Your task to perform on an android device: toggle javascript in the chrome app Image 0: 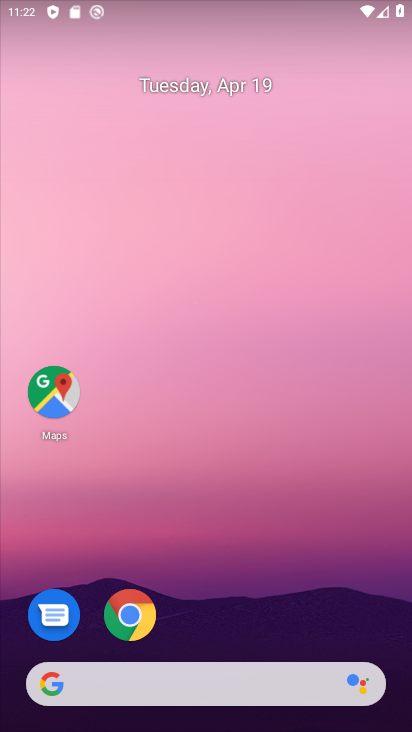
Step 0: drag from (275, 403) to (227, 127)
Your task to perform on an android device: toggle javascript in the chrome app Image 1: 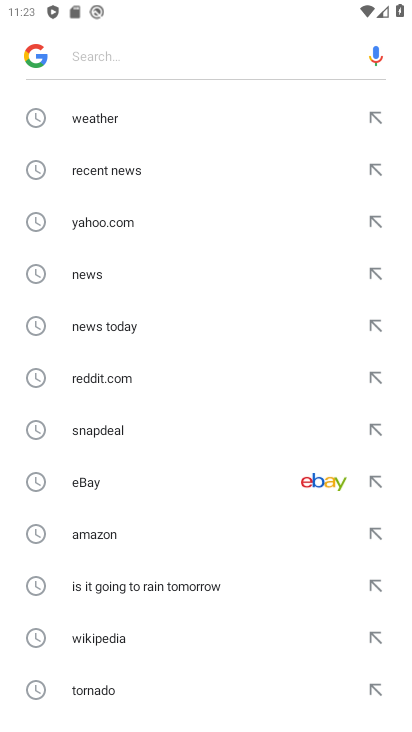
Step 1: press home button
Your task to perform on an android device: toggle javascript in the chrome app Image 2: 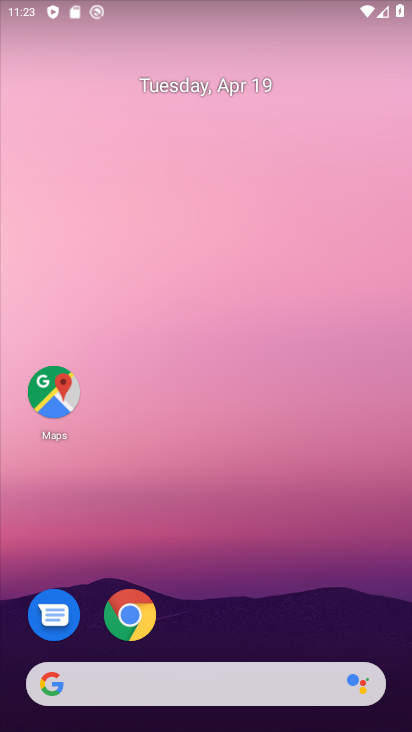
Step 2: click (129, 615)
Your task to perform on an android device: toggle javascript in the chrome app Image 3: 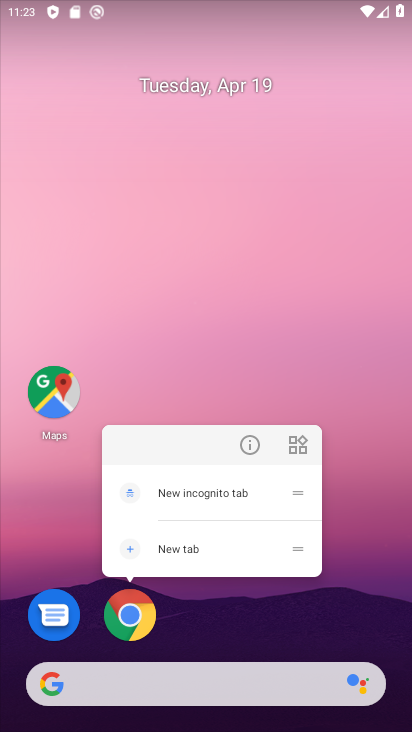
Step 3: click (129, 615)
Your task to perform on an android device: toggle javascript in the chrome app Image 4: 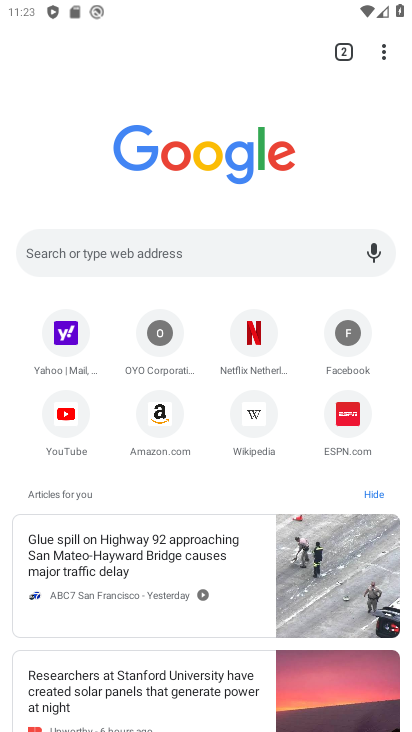
Step 4: click (378, 52)
Your task to perform on an android device: toggle javascript in the chrome app Image 5: 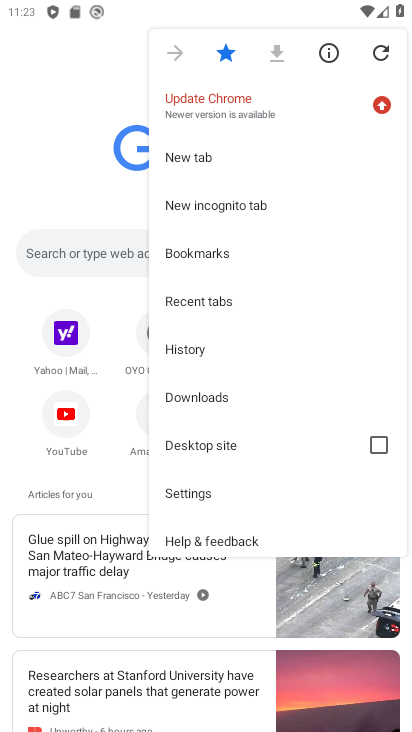
Step 5: click (204, 490)
Your task to perform on an android device: toggle javascript in the chrome app Image 6: 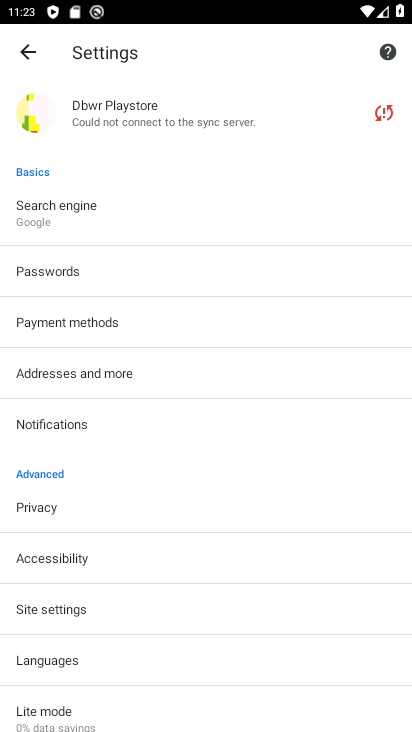
Step 6: drag from (195, 506) to (194, 187)
Your task to perform on an android device: toggle javascript in the chrome app Image 7: 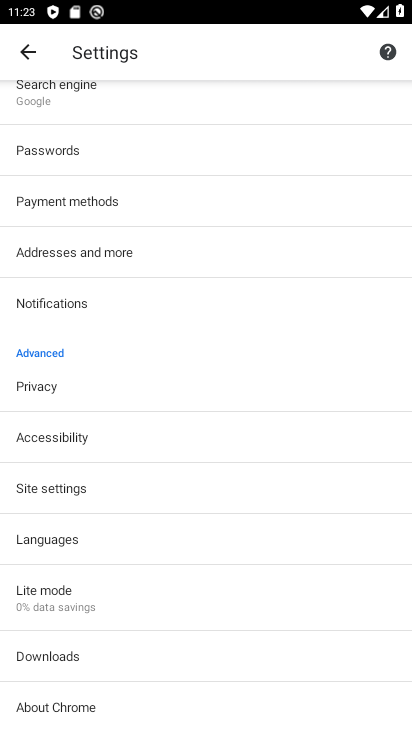
Step 7: drag from (175, 369) to (168, 151)
Your task to perform on an android device: toggle javascript in the chrome app Image 8: 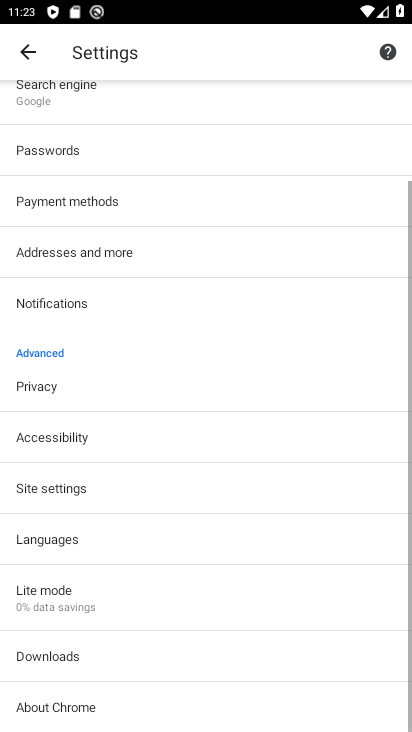
Step 8: drag from (174, 362) to (193, 306)
Your task to perform on an android device: toggle javascript in the chrome app Image 9: 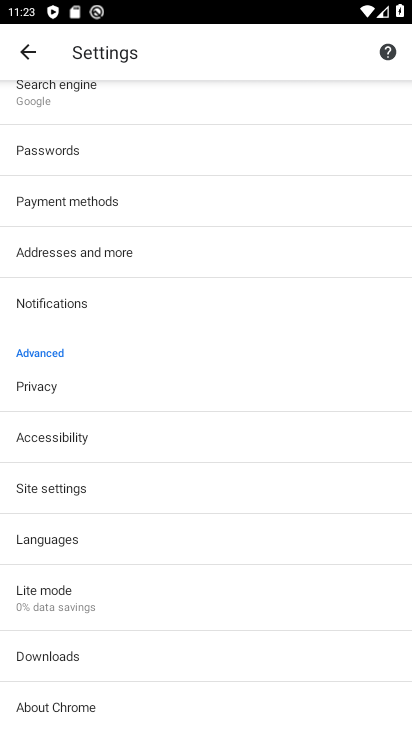
Step 9: click (95, 490)
Your task to perform on an android device: toggle javascript in the chrome app Image 10: 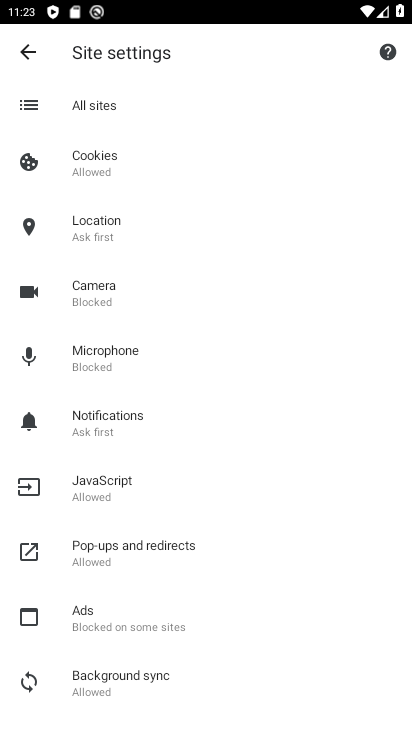
Step 10: click (142, 480)
Your task to perform on an android device: toggle javascript in the chrome app Image 11: 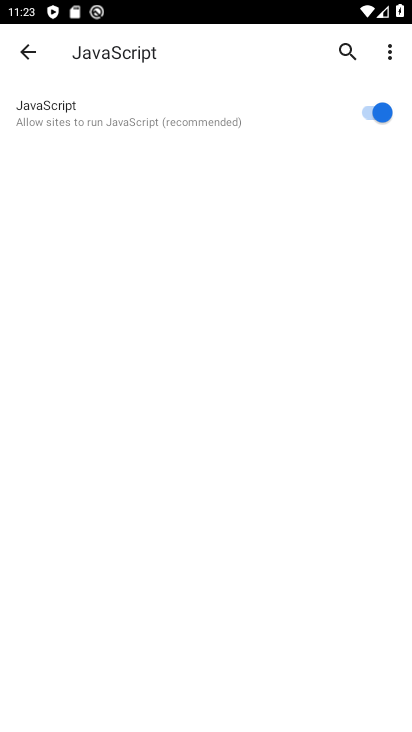
Step 11: click (379, 110)
Your task to perform on an android device: toggle javascript in the chrome app Image 12: 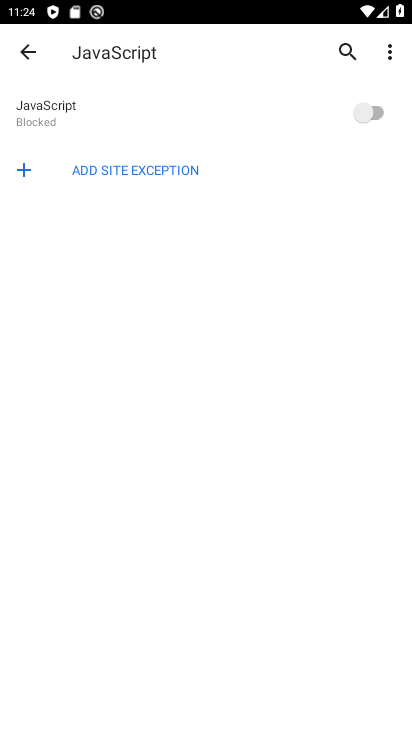
Step 12: task complete